Your task to perform on an android device: Open Amazon Image 0: 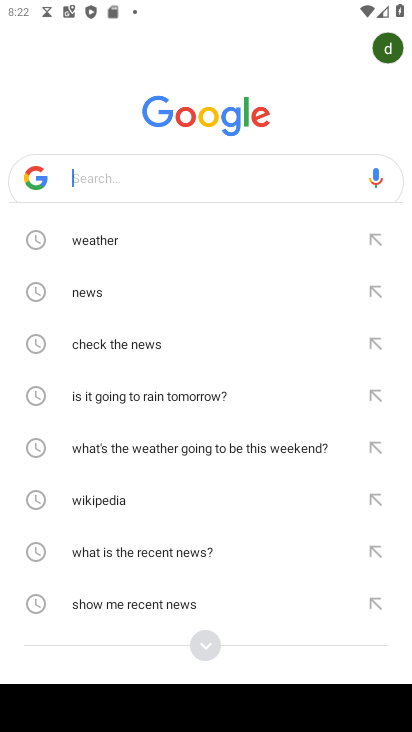
Step 0: press home button
Your task to perform on an android device: Open Amazon Image 1: 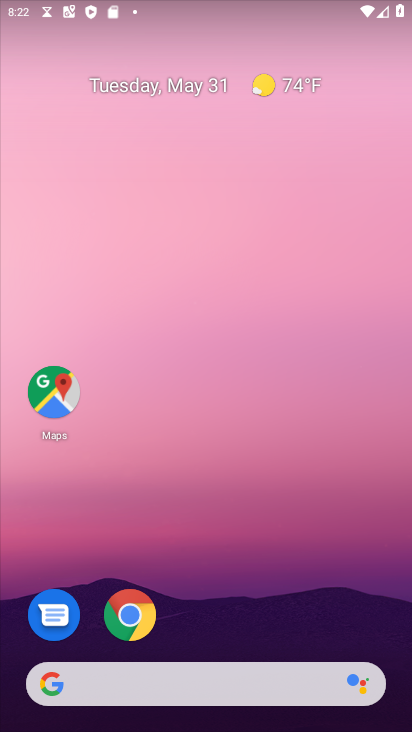
Step 1: click (135, 617)
Your task to perform on an android device: Open Amazon Image 2: 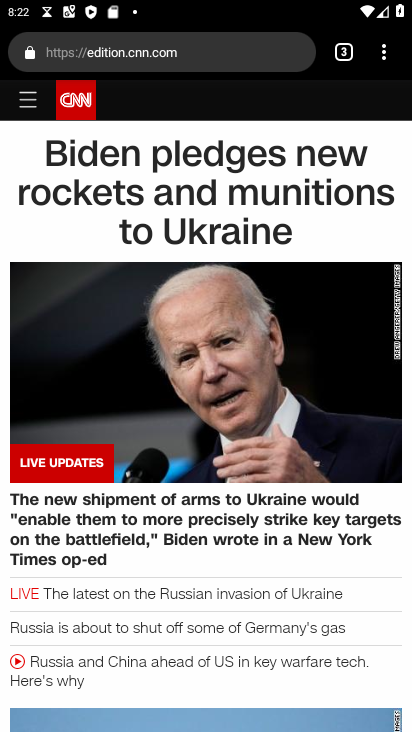
Step 2: drag from (386, 45) to (243, 102)
Your task to perform on an android device: Open Amazon Image 3: 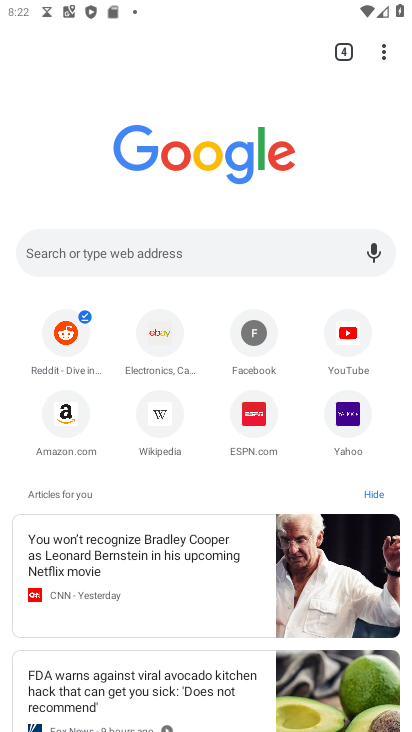
Step 3: click (60, 426)
Your task to perform on an android device: Open Amazon Image 4: 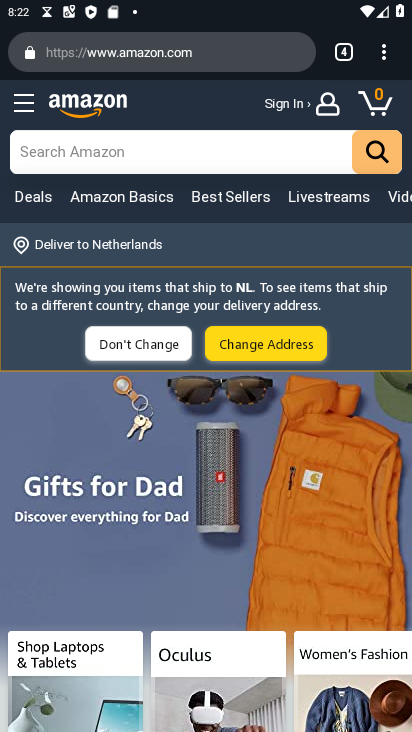
Step 4: task complete